Your task to perform on an android device: delete browsing data in the chrome app Image 0: 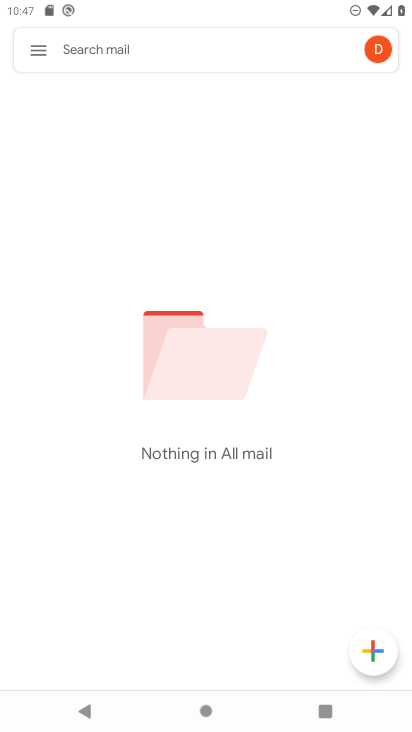
Step 0: press home button
Your task to perform on an android device: delete browsing data in the chrome app Image 1: 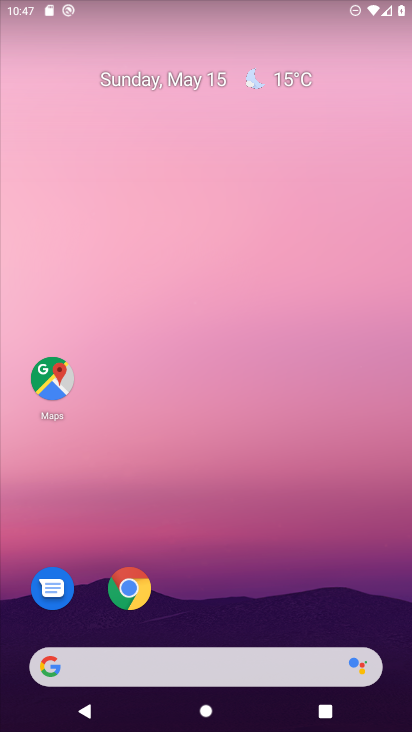
Step 1: click (131, 585)
Your task to perform on an android device: delete browsing data in the chrome app Image 2: 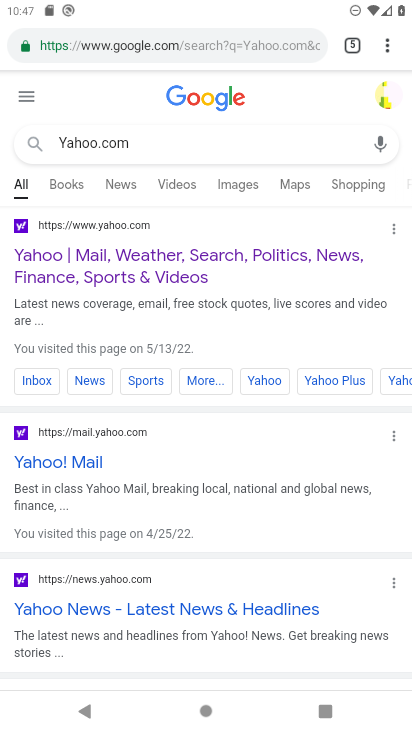
Step 2: click (391, 50)
Your task to perform on an android device: delete browsing data in the chrome app Image 3: 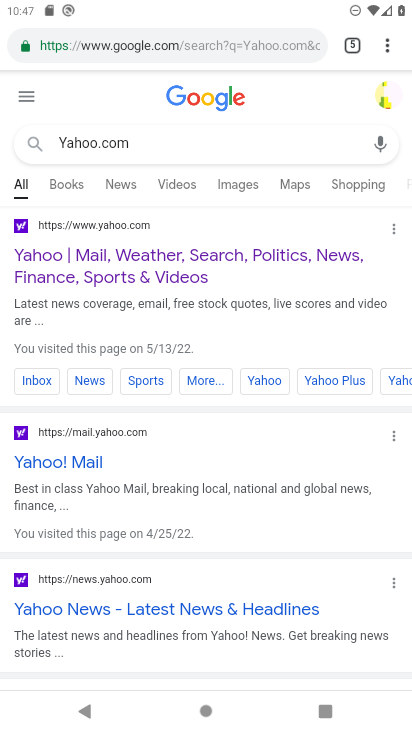
Step 3: click (386, 55)
Your task to perform on an android device: delete browsing data in the chrome app Image 4: 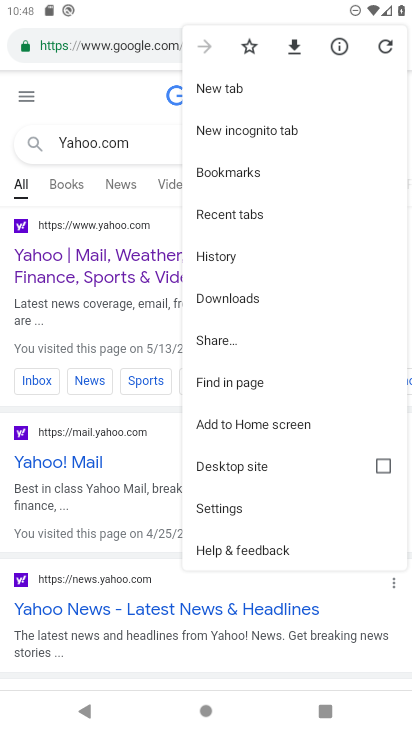
Step 4: click (215, 258)
Your task to perform on an android device: delete browsing data in the chrome app Image 5: 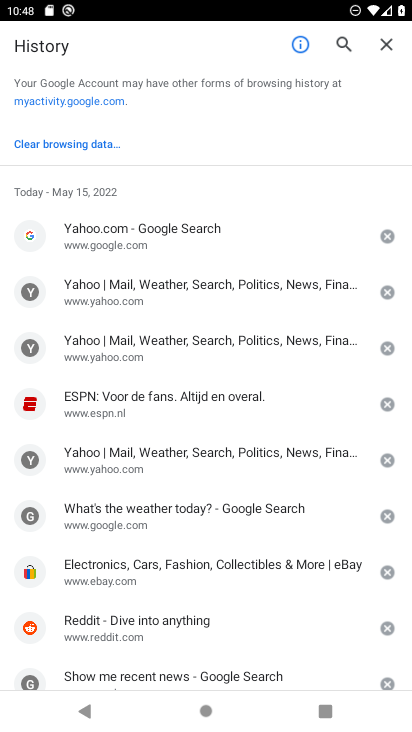
Step 5: click (74, 148)
Your task to perform on an android device: delete browsing data in the chrome app Image 6: 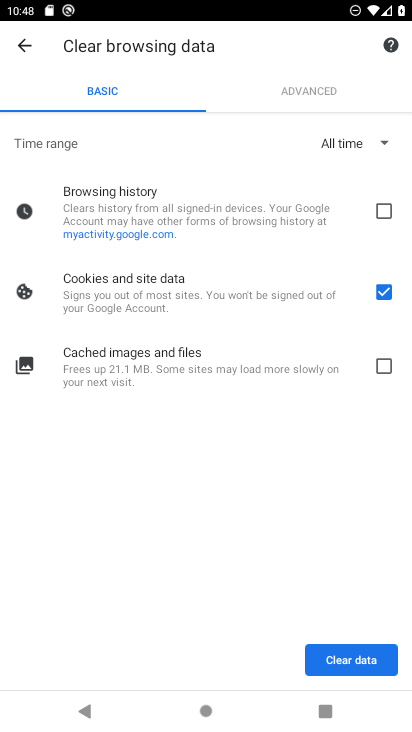
Step 6: click (382, 208)
Your task to perform on an android device: delete browsing data in the chrome app Image 7: 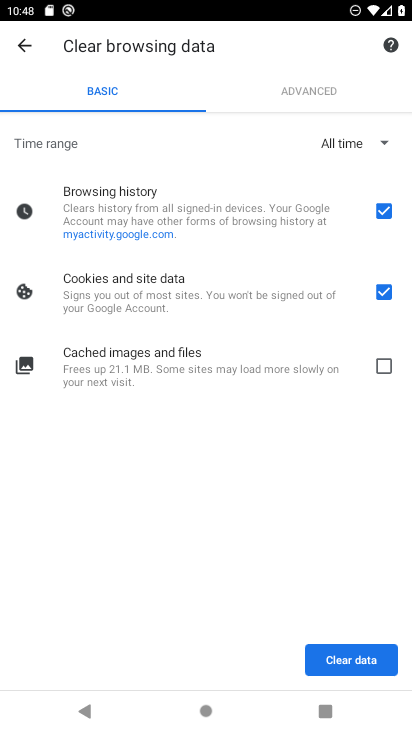
Step 7: click (381, 360)
Your task to perform on an android device: delete browsing data in the chrome app Image 8: 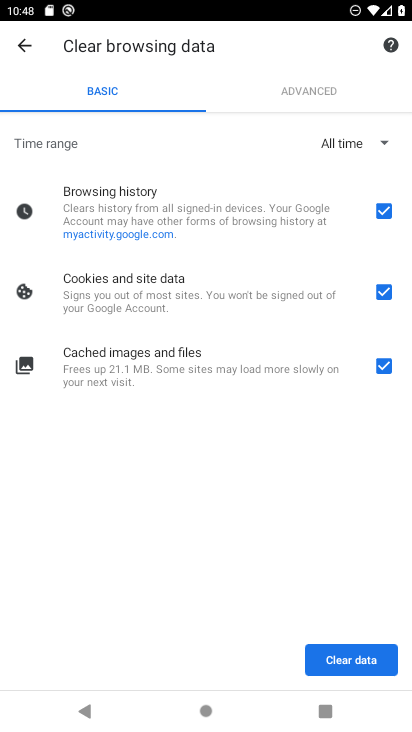
Step 8: click (374, 659)
Your task to perform on an android device: delete browsing data in the chrome app Image 9: 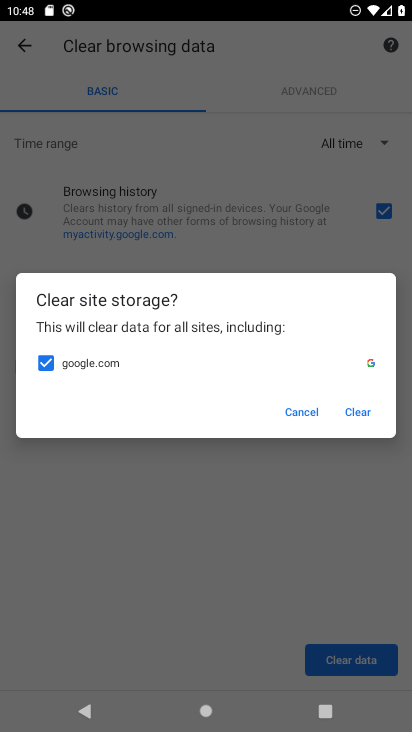
Step 9: click (353, 414)
Your task to perform on an android device: delete browsing data in the chrome app Image 10: 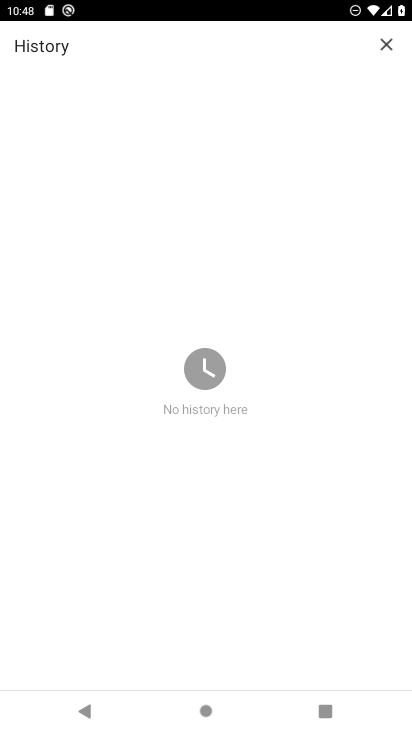
Step 10: task complete